Your task to perform on an android device: What's the weather going to be this weekend? Image 0: 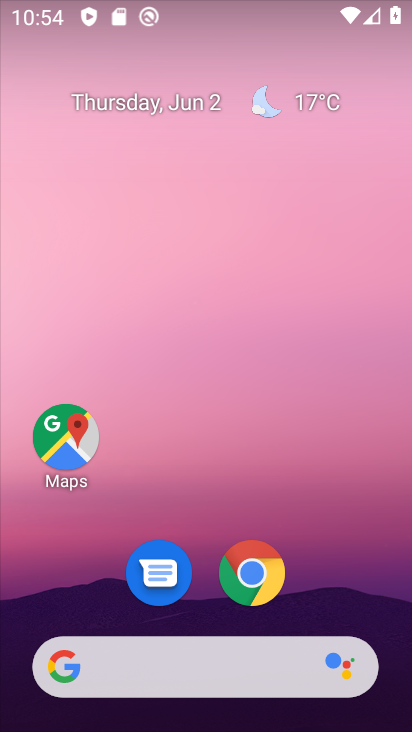
Step 0: task complete